Your task to perform on an android device: toggle wifi Image 0: 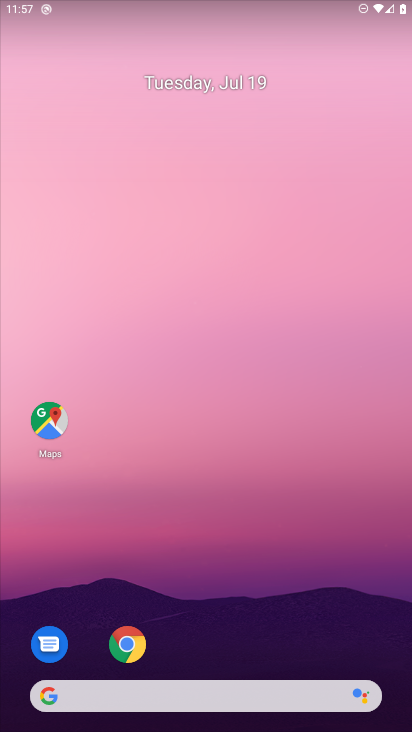
Step 0: drag from (48, 681) to (328, 0)
Your task to perform on an android device: toggle wifi Image 1: 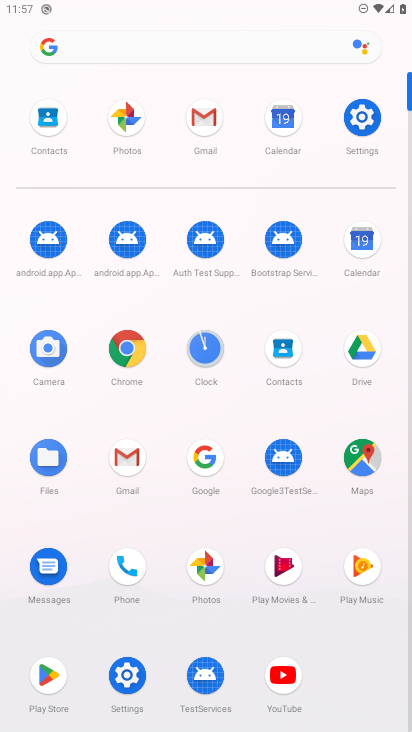
Step 1: click (124, 671)
Your task to perform on an android device: toggle wifi Image 2: 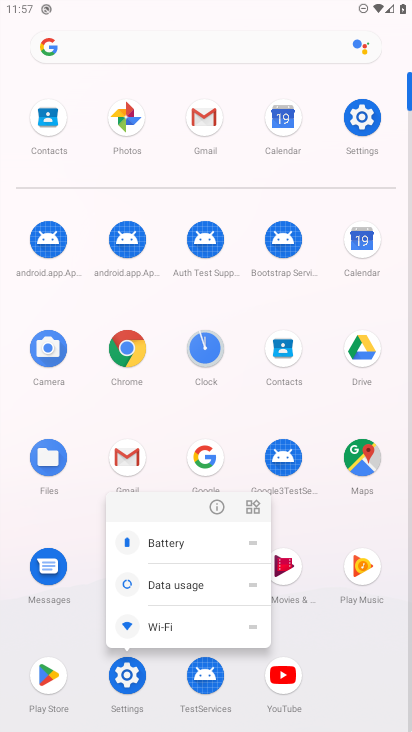
Step 2: click (142, 692)
Your task to perform on an android device: toggle wifi Image 3: 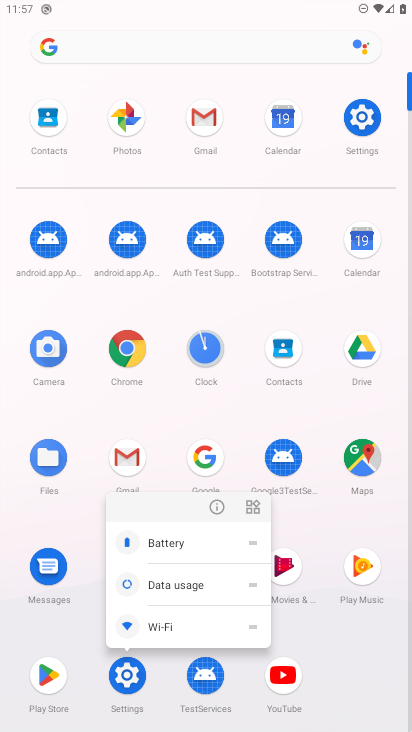
Step 3: click (126, 688)
Your task to perform on an android device: toggle wifi Image 4: 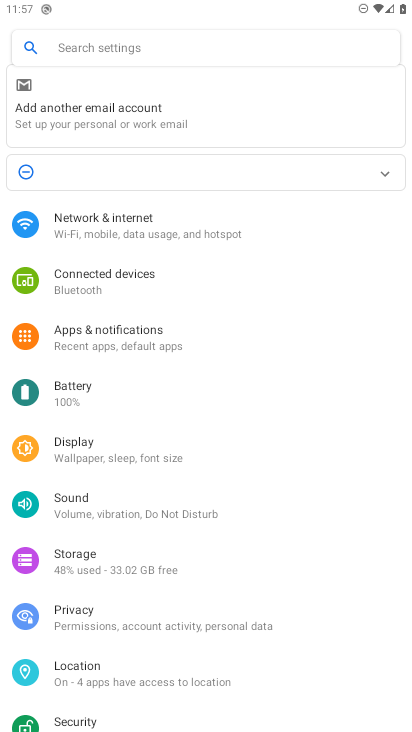
Step 4: click (98, 234)
Your task to perform on an android device: toggle wifi Image 5: 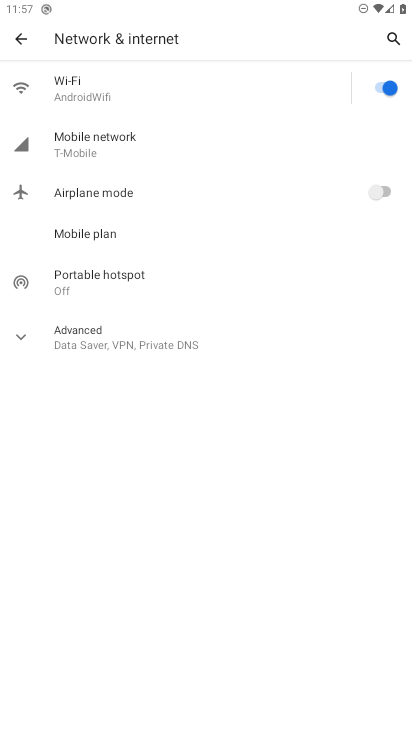
Step 5: task complete